Your task to perform on an android device: Open Google Maps Image 0: 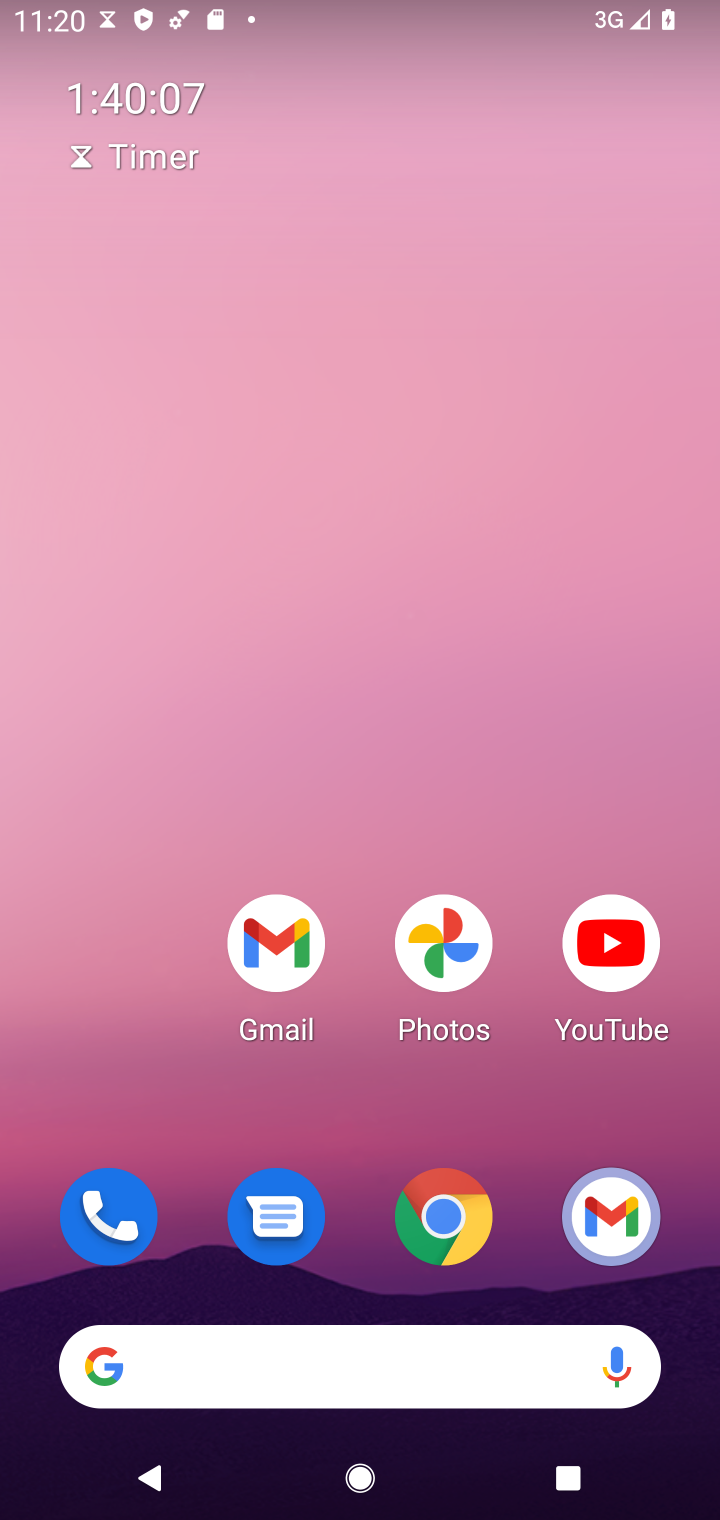
Step 0: drag from (205, 939) to (257, 171)
Your task to perform on an android device: Open Google Maps Image 1: 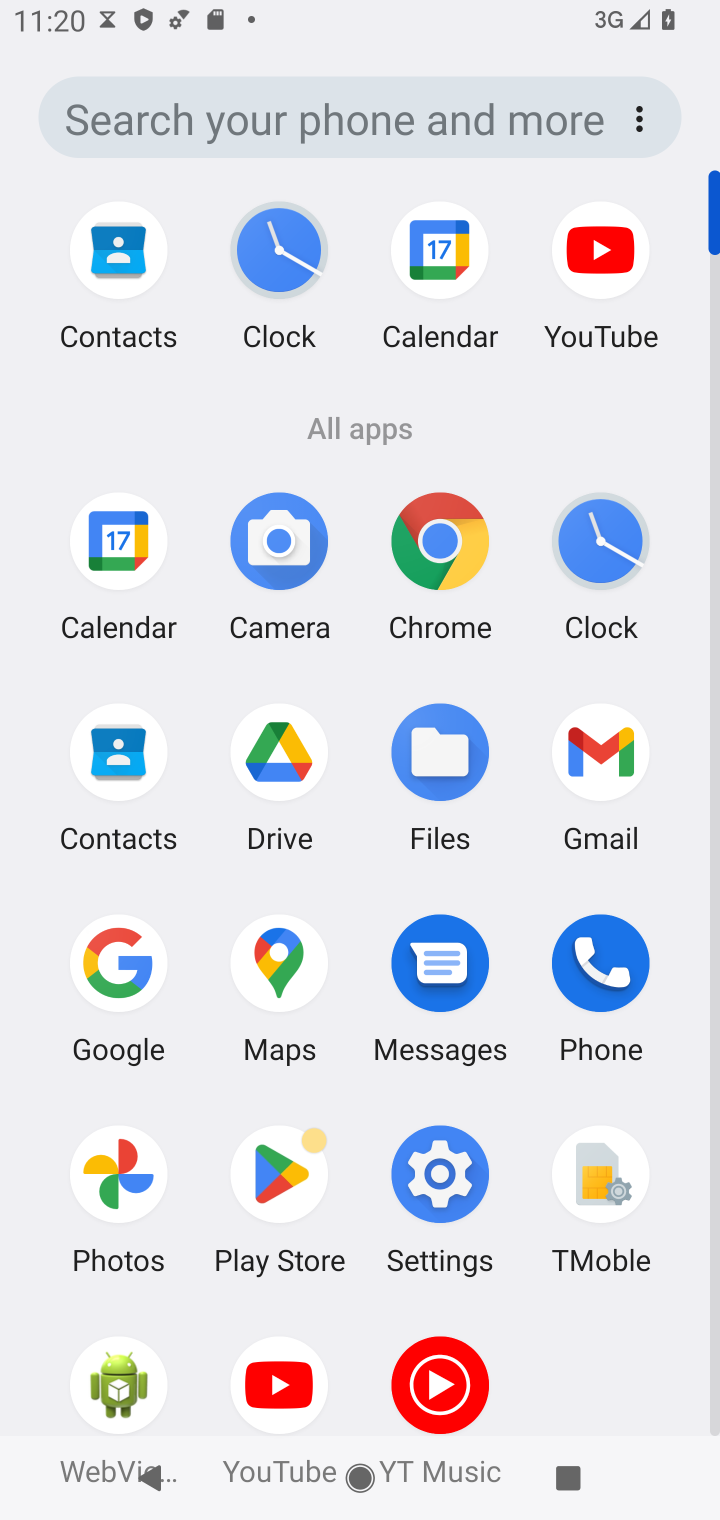
Step 1: click (274, 989)
Your task to perform on an android device: Open Google Maps Image 2: 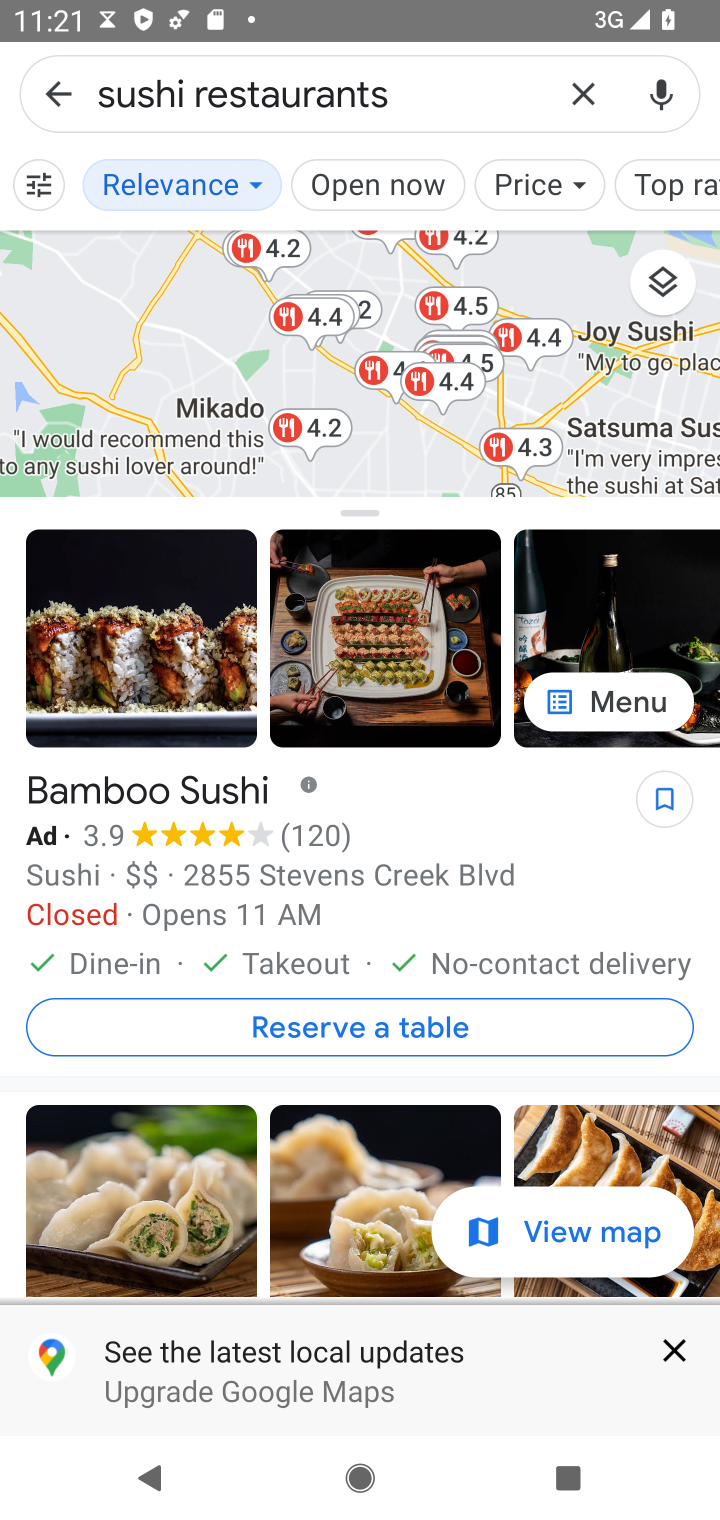
Step 2: task complete